Your task to perform on an android device: open app "ZOOM Cloud Meetings" (install if not already installed) Image 0: 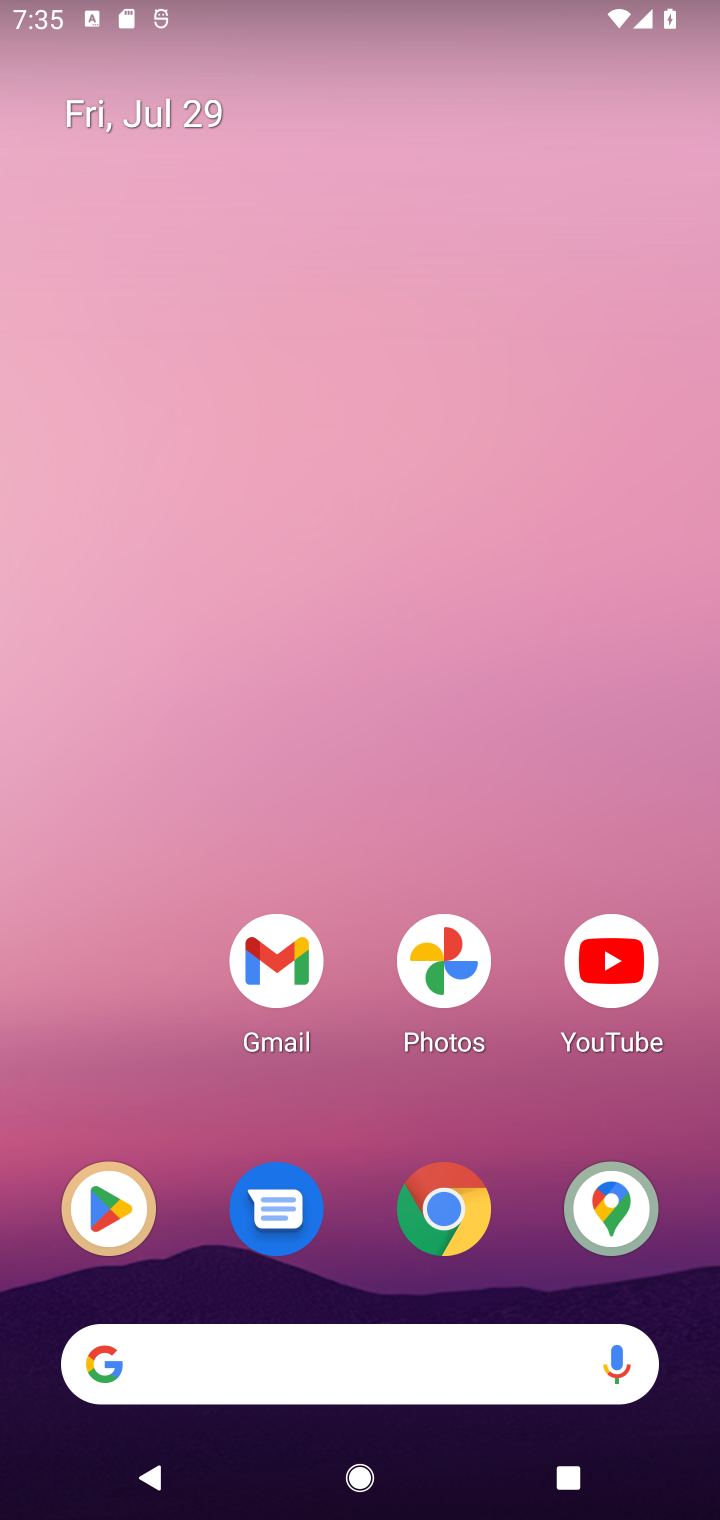
Step 0: click (116, 1211)
Your task to perform on an android device: open app "ZOOM Cloud Meetings" (install if not already installed) Image 1: 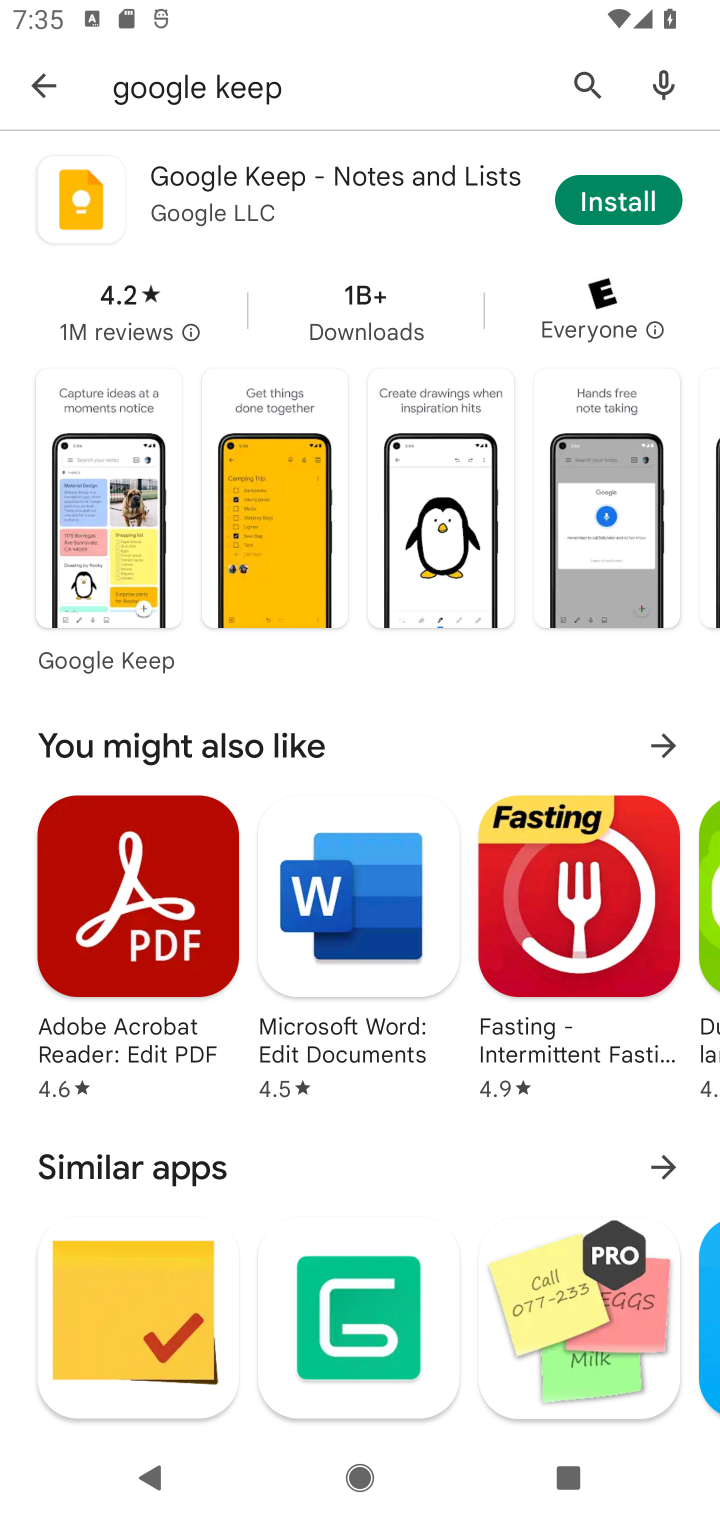
Step 1: click (586, 79)
Your task to perform on an android device: open app "ZOOM Cloud Meetings" (install if not already installed) Image 2: 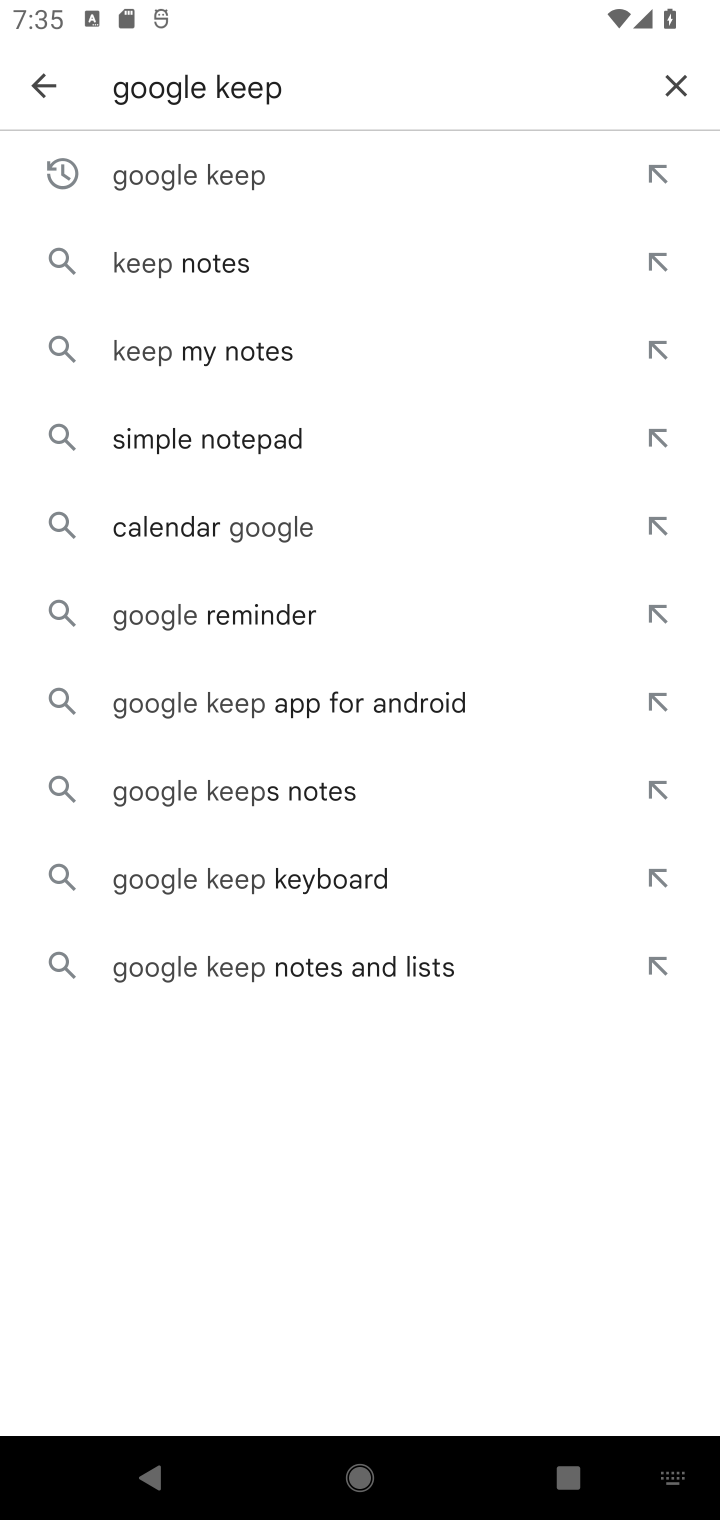
Step 2: click (670, 85)
Your task to perform on an android device: open app "ZOOM Cloud Meetings" (install if not already installed) Image 3: 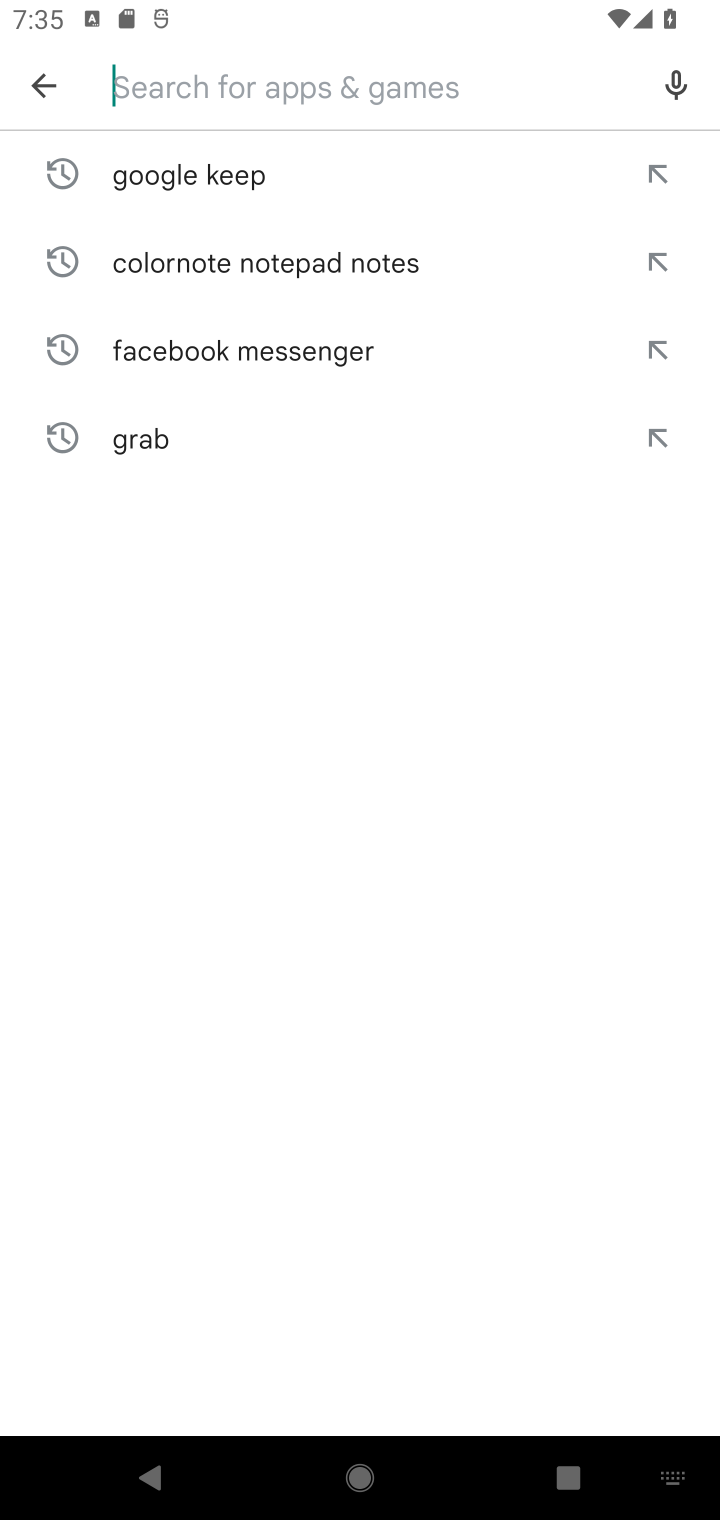
Step 3: type "ZOOM Cloud Meetings"
Your task to perform on an android device: open app "ZOOM Cloud Meetings" (install if not already installed) Image 4: 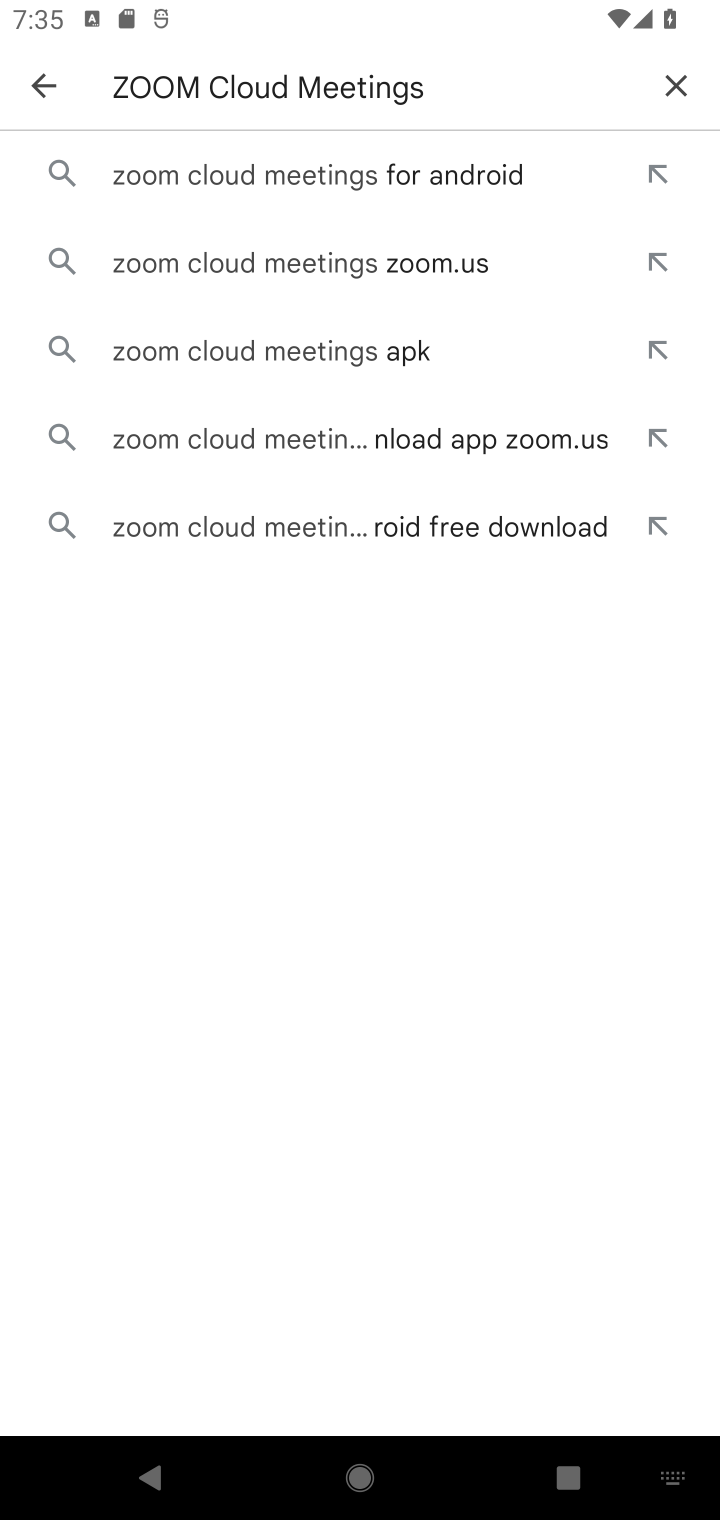
Step 4: click (269, 188)
Your task to perform on an android device: open app "ZOOM Cloud Meetings" (install if not already installed) Image 5: 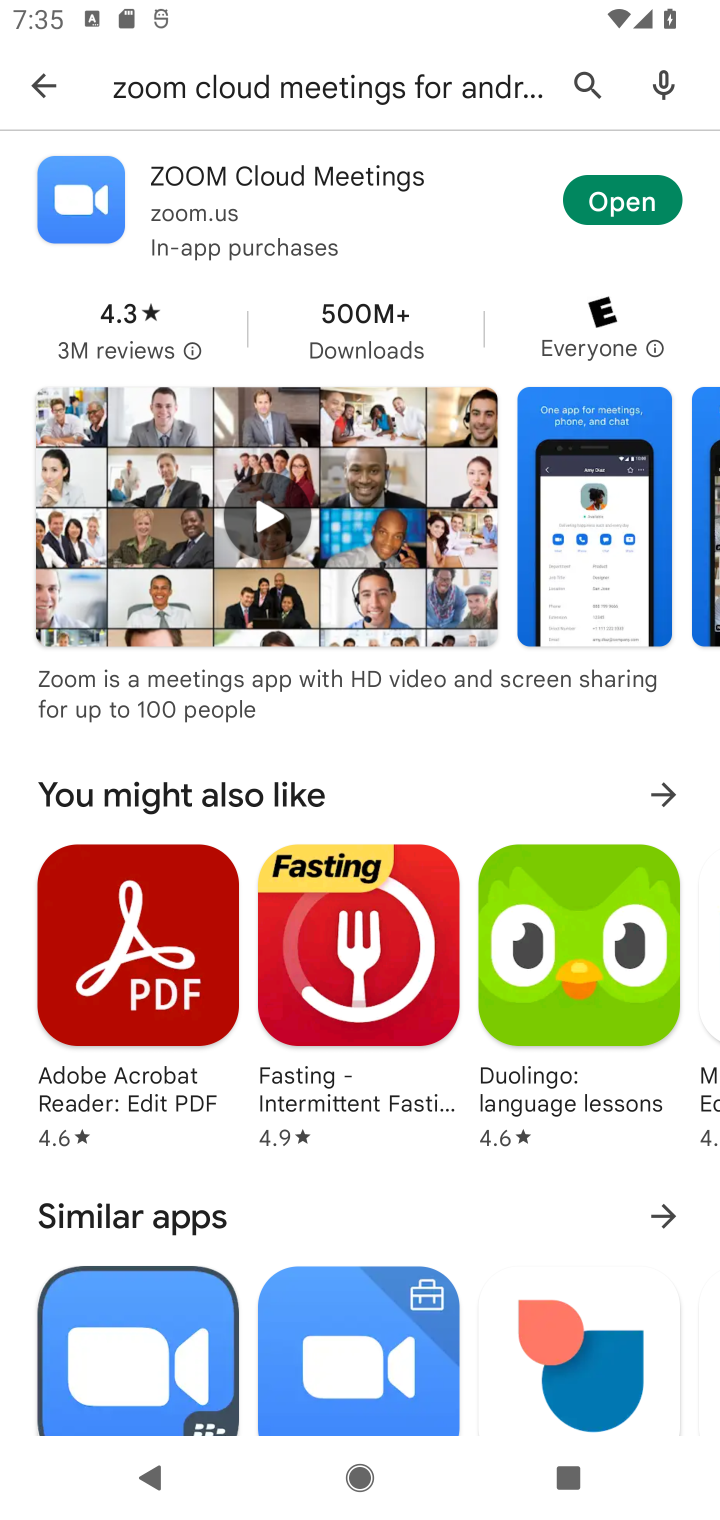
Step 5: click (651, 187)
Your task to perform on an android device: open app "ZOOM Cloud Meetings" (install if not already installed) Image 6: 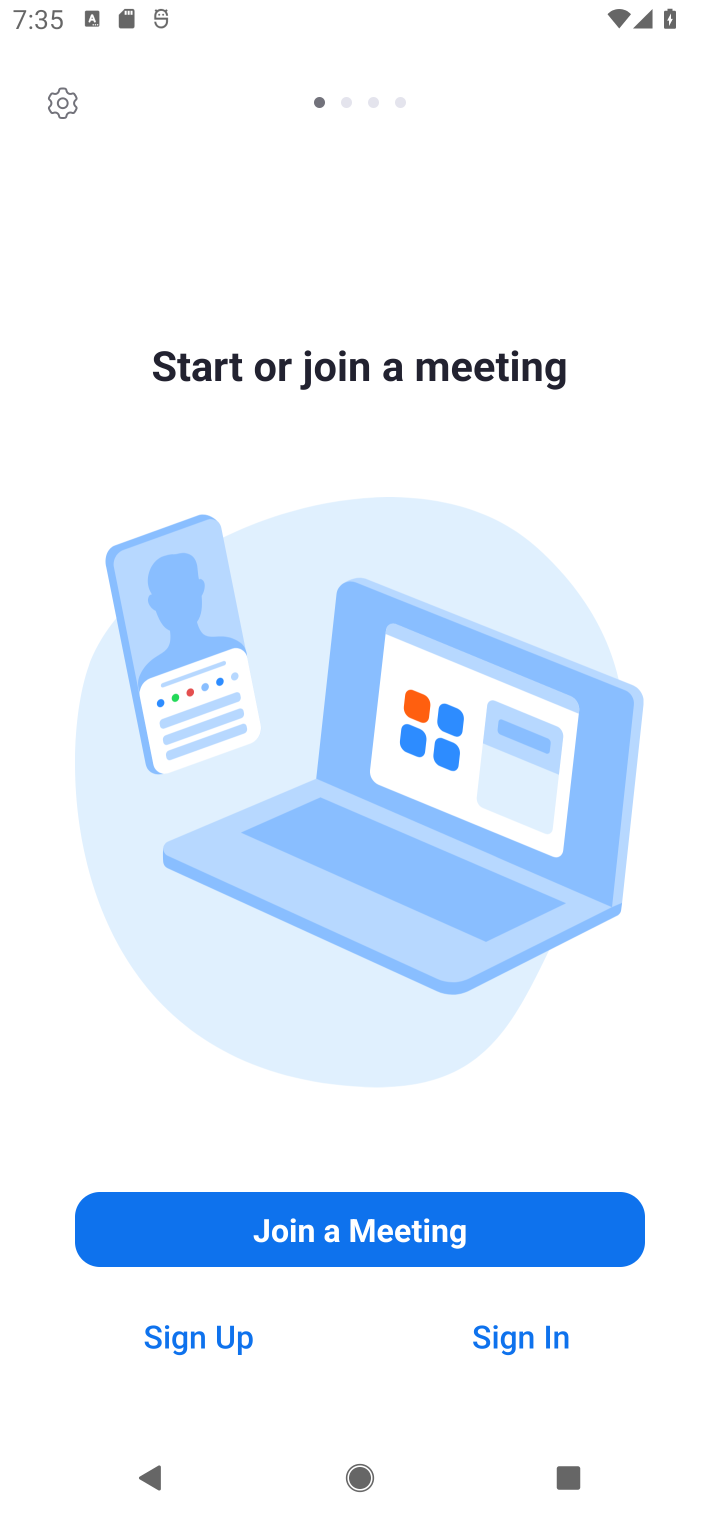
Step 6: task complete